Your task to perform on an android device: set default search engine in the chrome app Image 0: 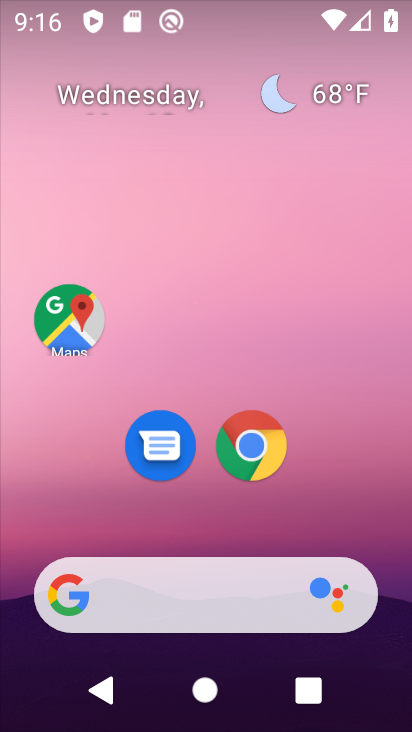
Step 0: drag from (327, 485) to (328, 144)
Your task to perform on an android device: set default search engine in the chrome app Image 1: 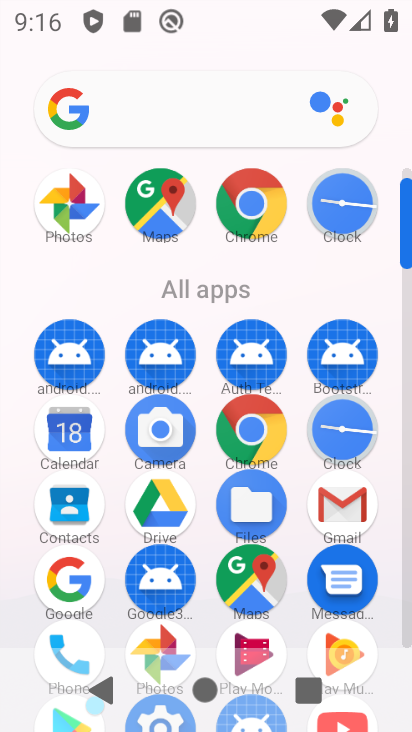
Step 1: click (240, 217)
Your task to perform on an android device: set default search engine in the chrome app Image 2: 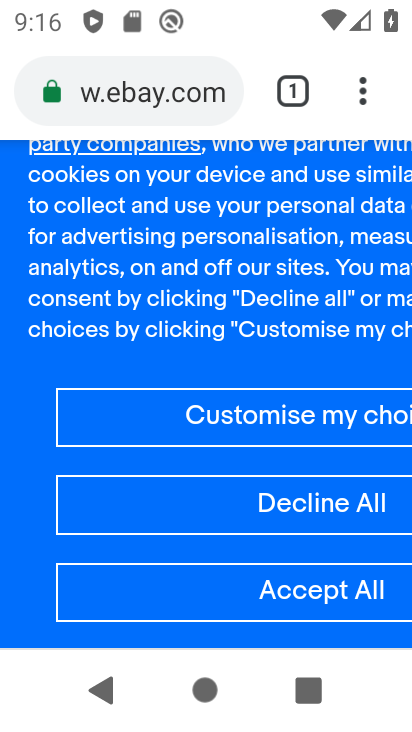
Step 2: drag from (238, 230) to (315, 629)
Your task to perform on an android device: set default search engine in the chrome app Image 3: 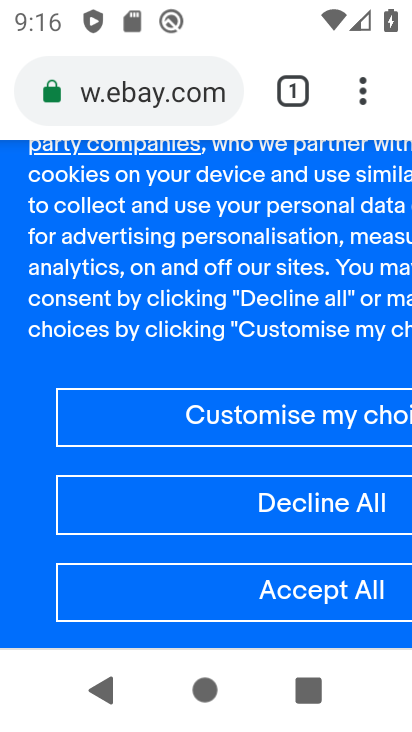
Step 3: drag from (314, 243) to (334, 540)
Your task to perform on an android device: set default search engine in the chrome app Image 4: 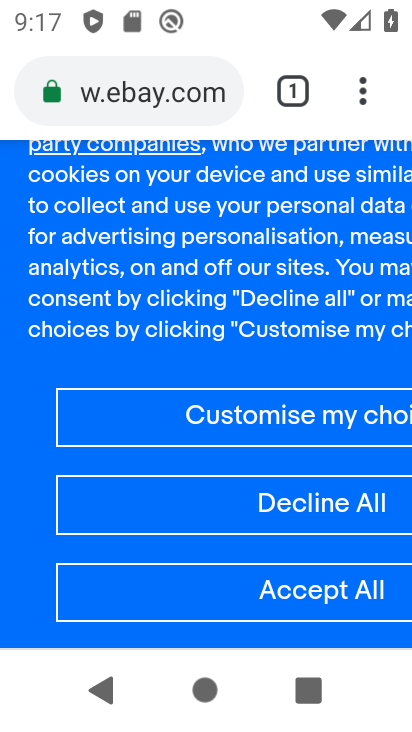
Step 4: click (376, 83)
Your task to perform on an android device: set default search engine in the chrome app Image 5: 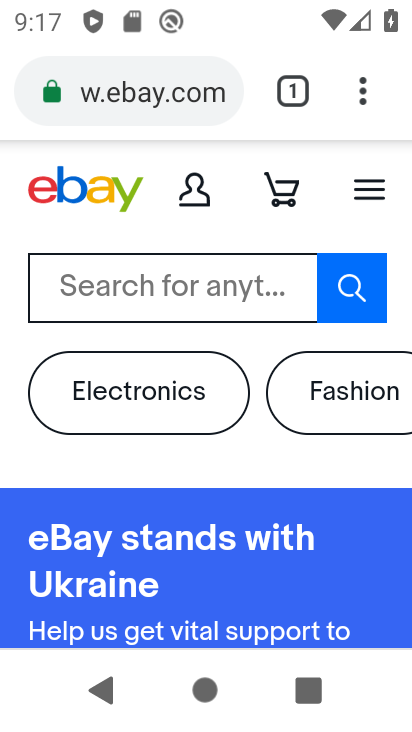
Step 5: drag from (357, 92) to (165, 445)
Your task to perform on an android device: set default search engine in the chrome app Image 6: 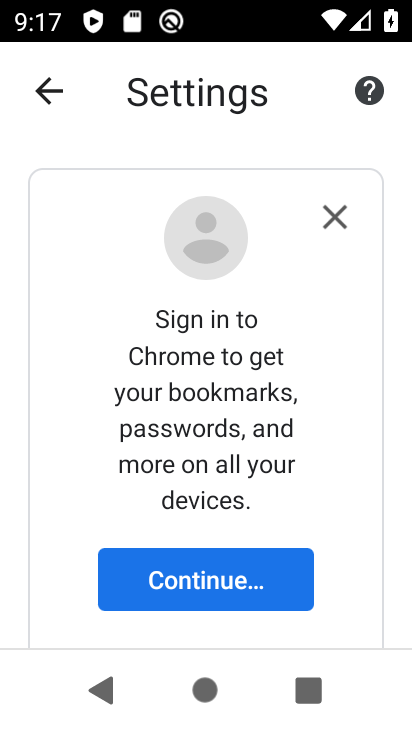
Step 6: drag from (338, 624) to (311, 212)
Your task to perform on an android device: set default search engine in the chrome app Image 7: 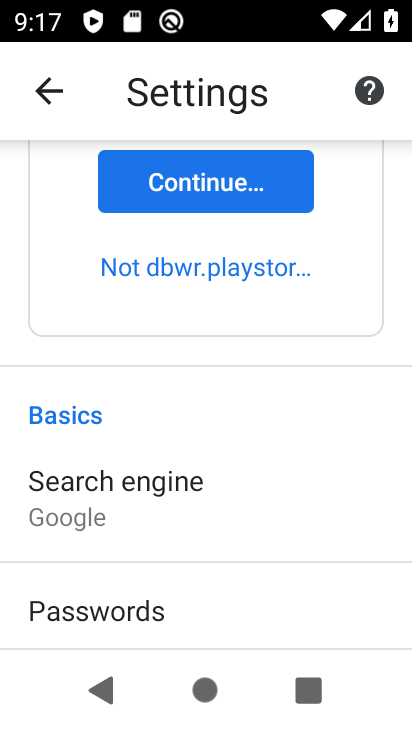
Step 7: drag from (178, 558) to (171, 345)
Your task to perform on an android device: set default search engine in the chrome app Image 8: 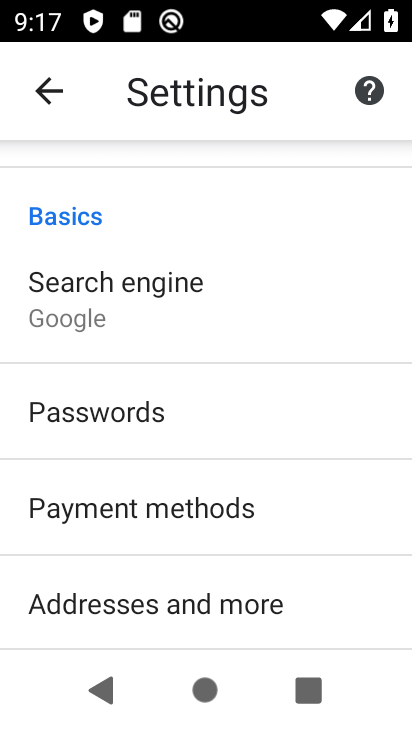
Step 8: click (106, 329)
Your task to perform on an android device: set default search engine in the chrome app Image 9: 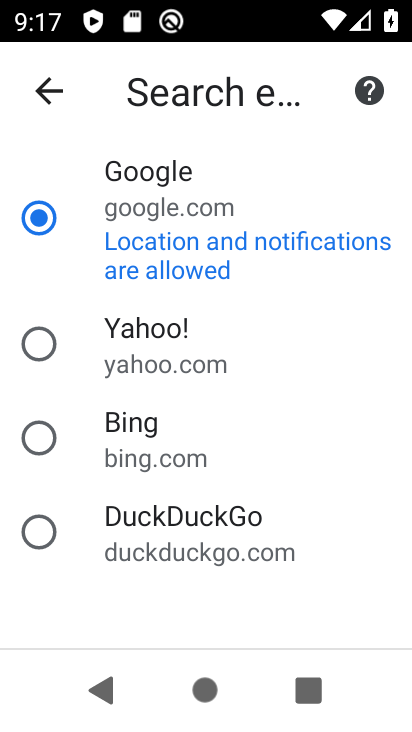
Step 9: task complete